Your task to perform on an android device: Go to CNN.com Image 0: 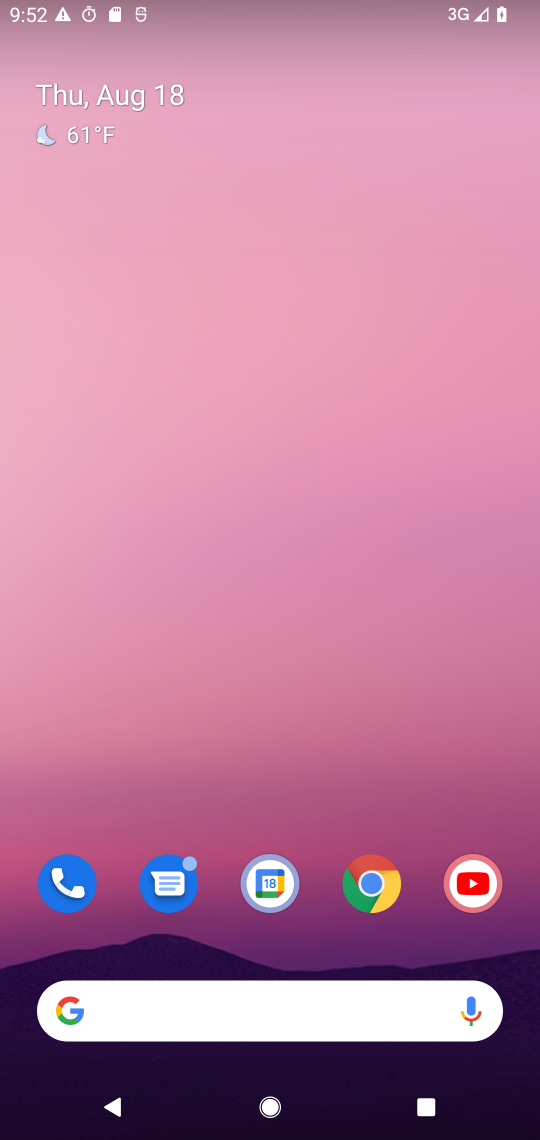
Step 0: click (105, 993)
Your task to perform on an android device: Go to CNN.com Image 1: 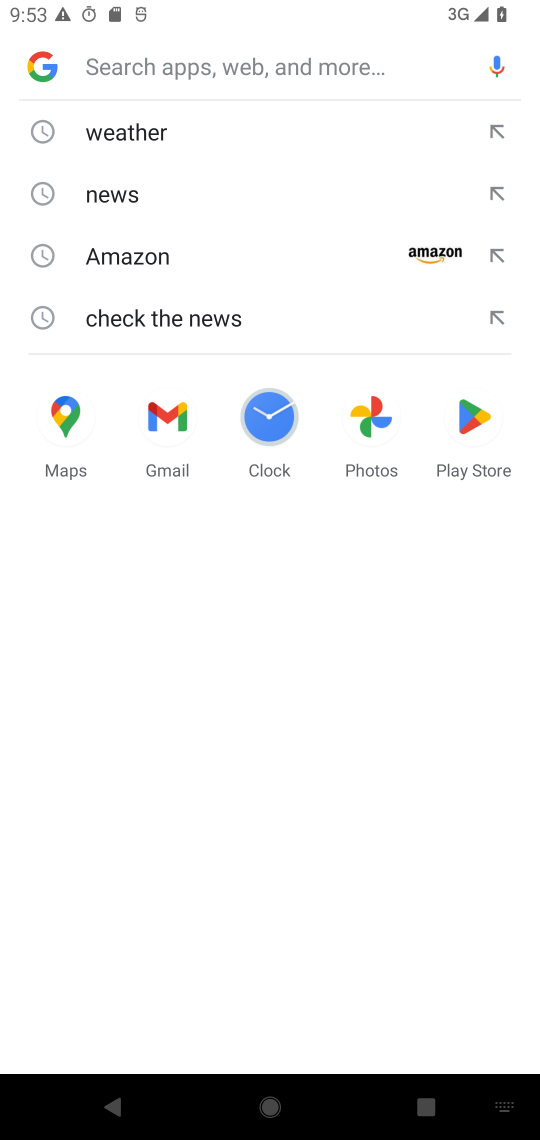
Step 1: type "CNN.com"
Your task to perform on an android device: Go to CNN.com Image 2: 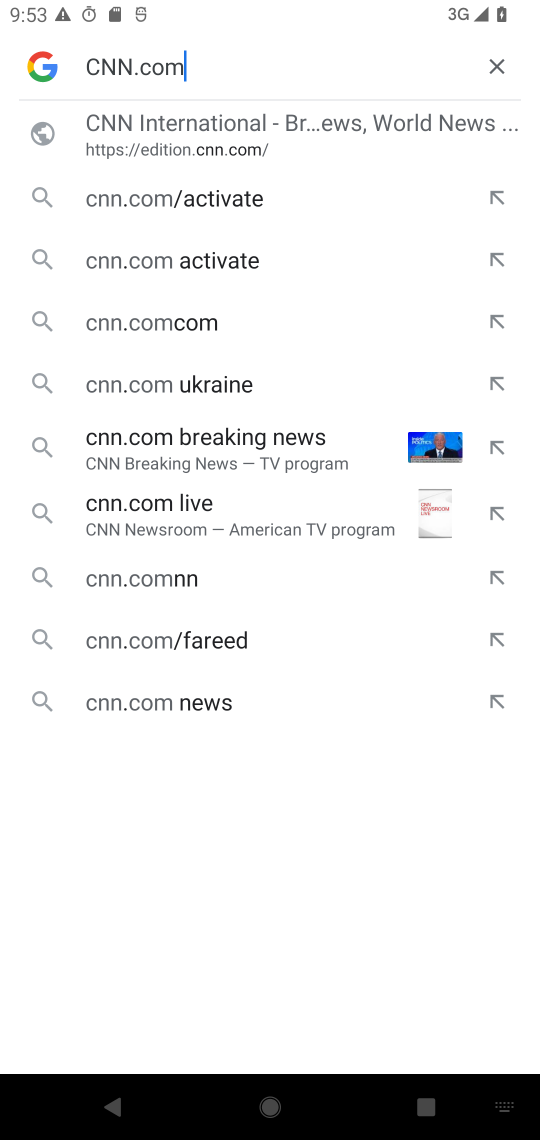
Step 2: click (146, 112)
Your task to perform on an android device: Go to CNN.com Image 3: 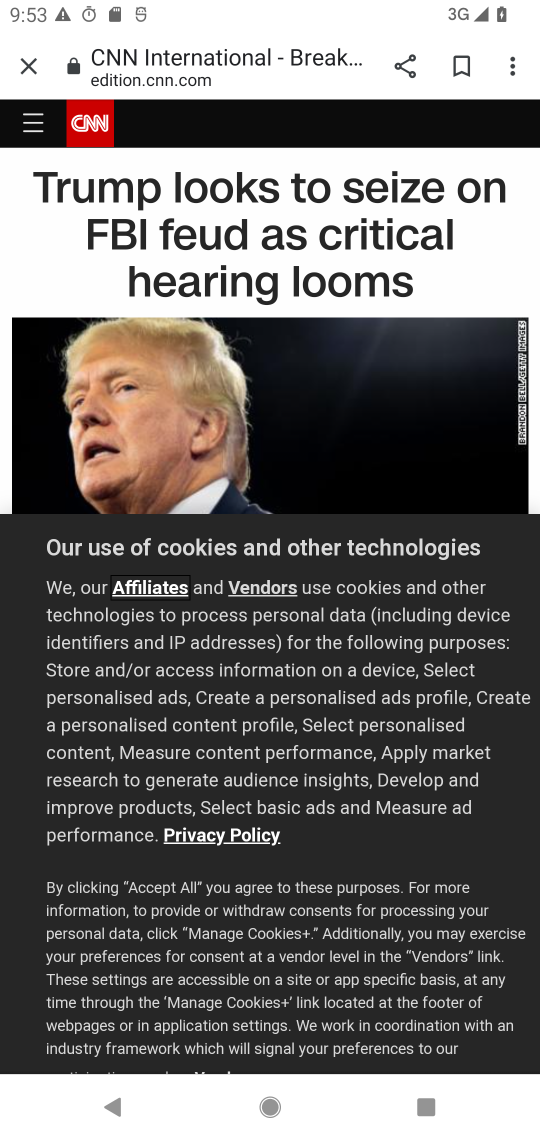
Step 3: task complete